Your task to perform on an android device: turn off location history Image 0: 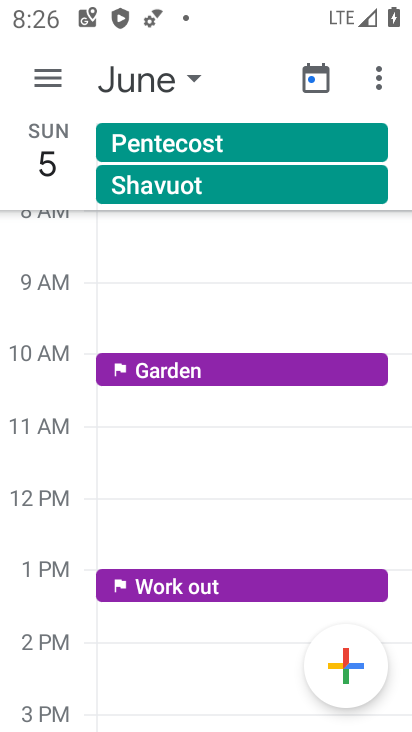
Step 0: press home button
Your task to perform on an android device: turn off location history Image 1: 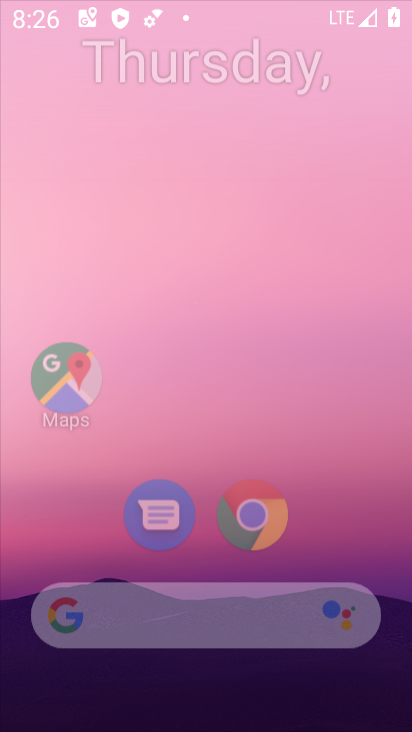
Step 1: click (370, 465)
Your task to perform on an android device: turn off location history Image 2: 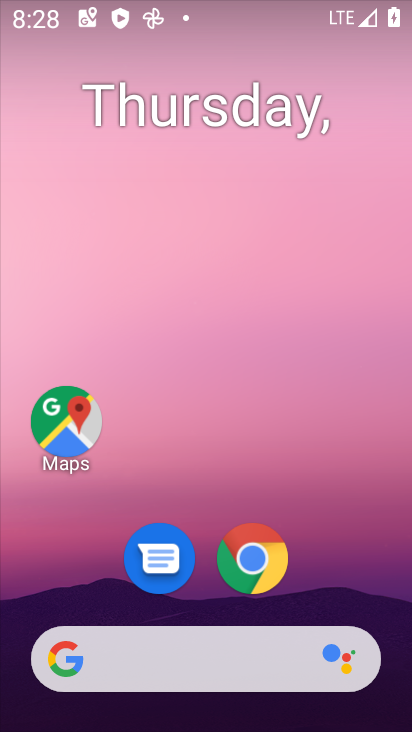
Step 2: drag from (177, 624) to (388, 42)
Your task to perform on an android device: turn off location history Image 3: 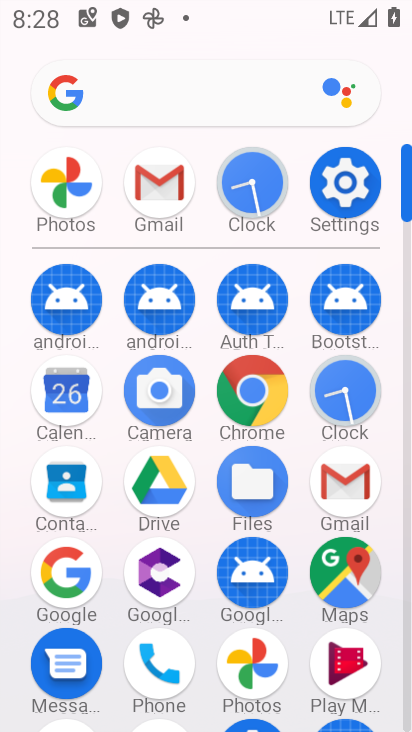
Step 3: click (346, 181)
Your task to perform on an android device: turn off location history Image 4: 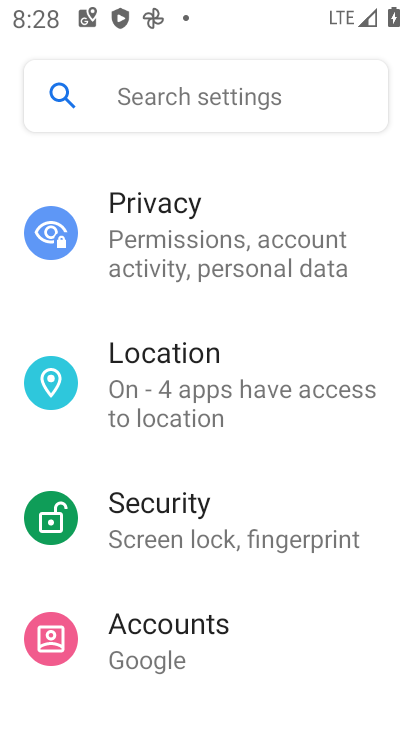
Step 4: click (174, 375)
Your task to perform on an android device: turn off location history Image 5: 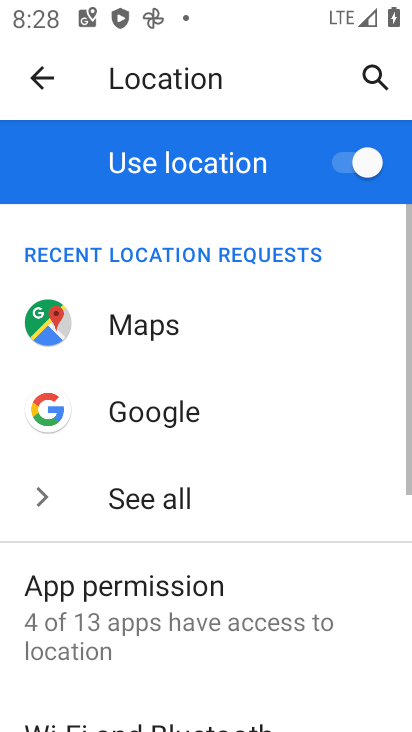
Step 5: drag from (167, 678) to (226, 301)
Your task to perform on an android device: turn off location history Image 6: 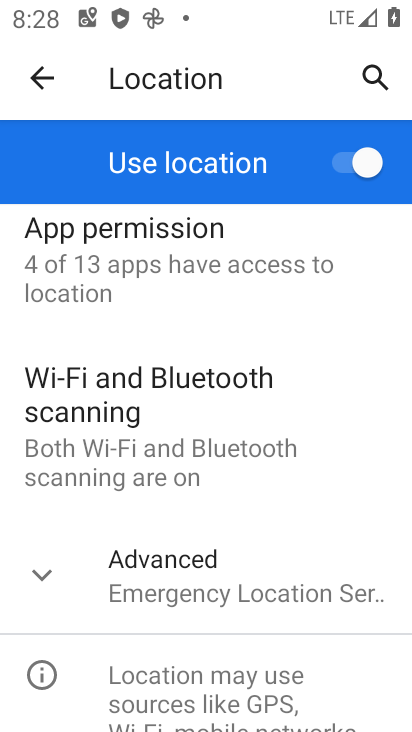
Step 6: click (175, 571)
Your task to perform on an android device: turn off location history Image 7: 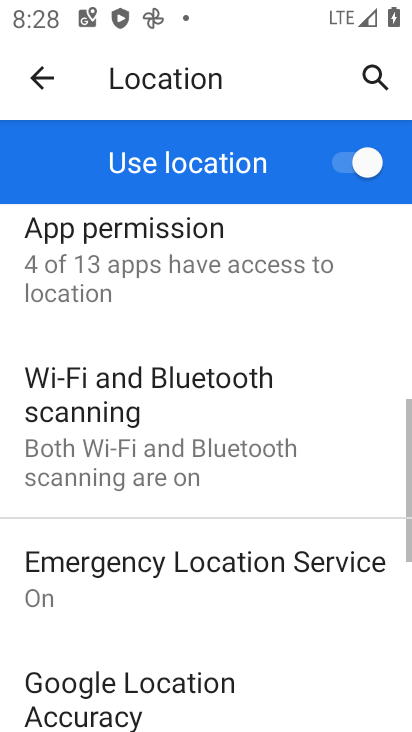
Step 7: drag from (196, 639) to (228, 235)
Your task to perform on an android device: turn off location history Image 8: 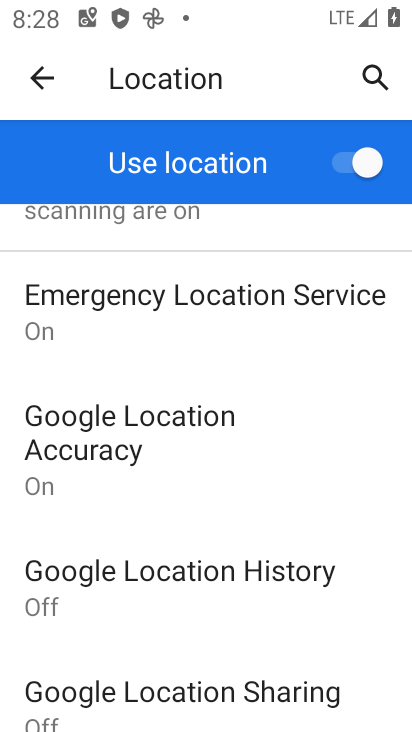
Step 8: click (131, 582)
Your task to perform on an android device: turn off location history Image 9: 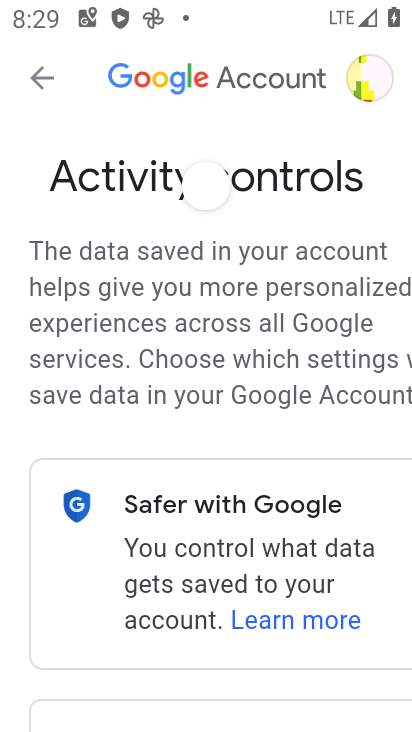
Step 9: task complete